Your task to perform on an android device: Open Google Image 0: 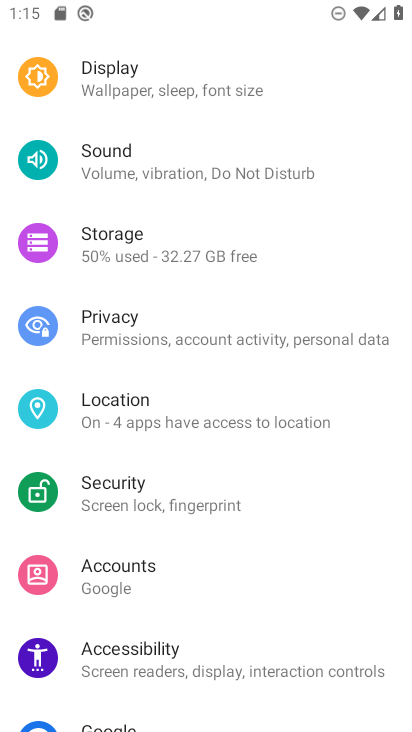
Step 0: press home button
Your task to perform on an android device: Open Google Image 1: 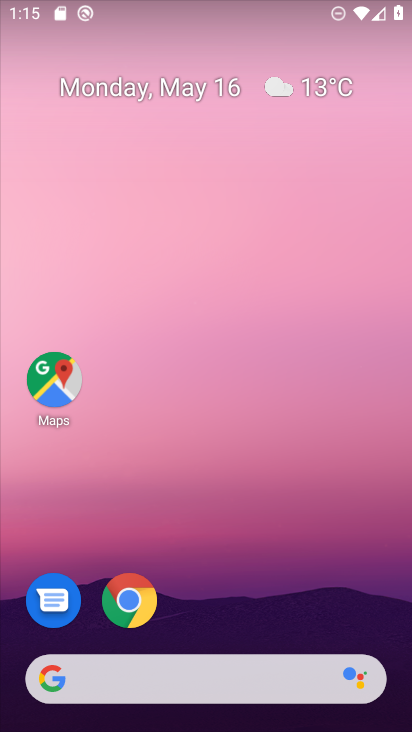
Step 1: drag from (219, 636) to (234, 58)
Your task to perform on an android device: Open Google Image 2: 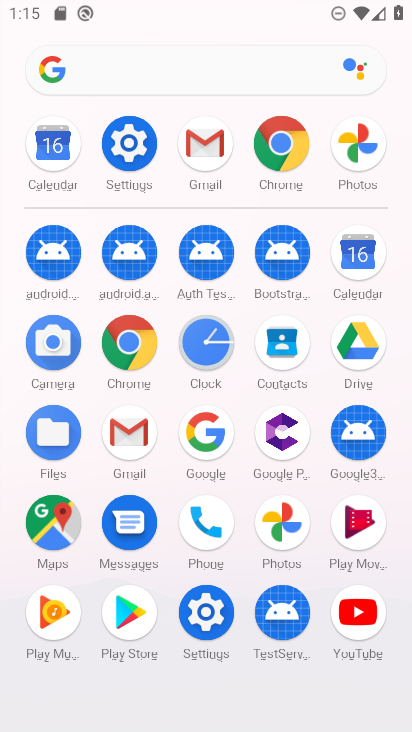
Step 2: click (204, 423)
Your task to perform on an android device: Open Google Image 3: 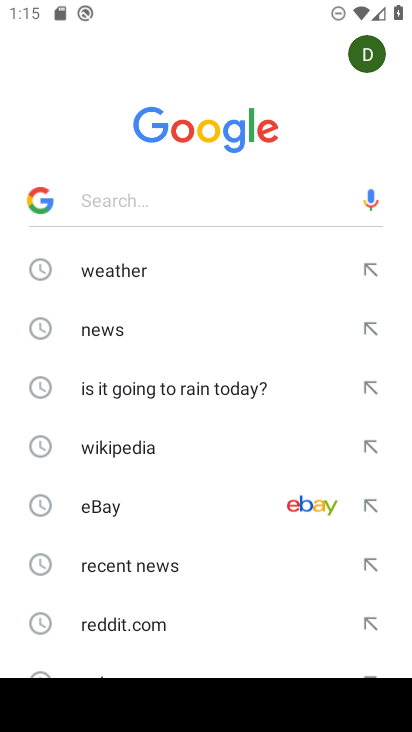
Step 3: click (163, 116)
Your task to perform on an android device: Open Google Image 4: 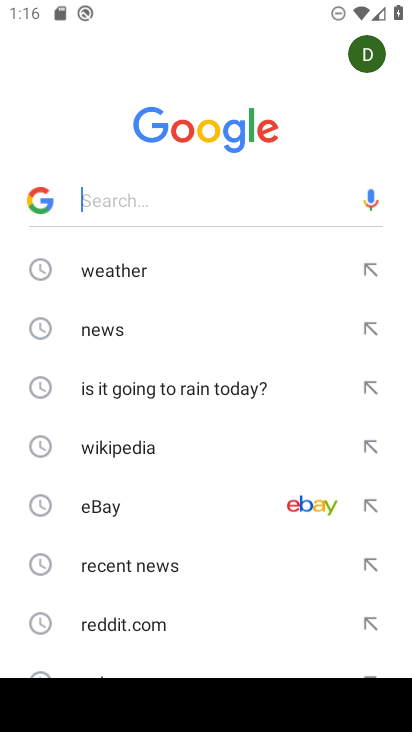
Step 4: task complete